Your task to perform on an android device: Go to Google Image 0: 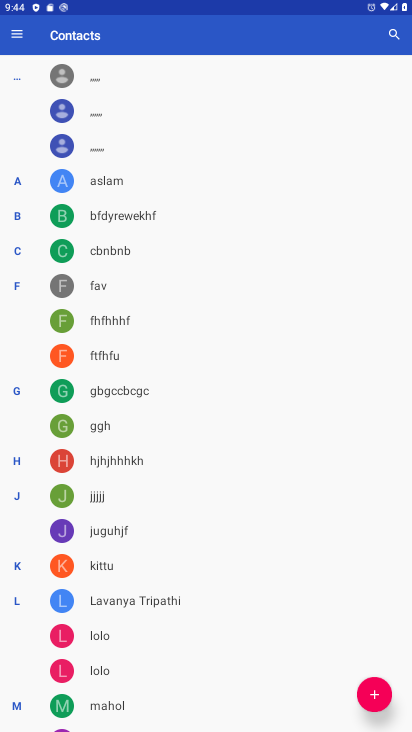
Step 0: press home button
Your task to perform on an android device: Go to Google Image 1: 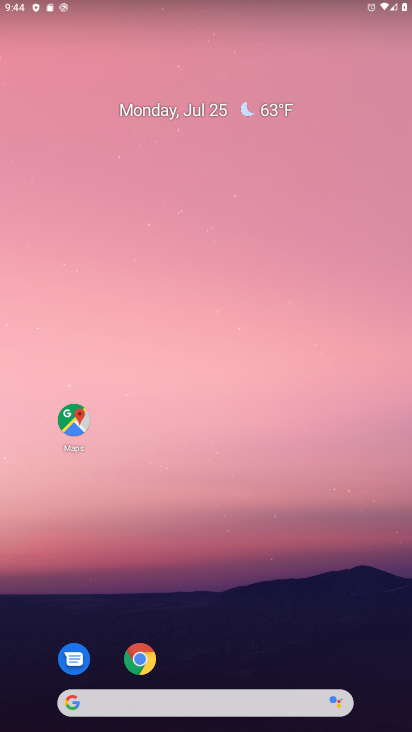
Step 1: drag from (230, 719) to (230, 298)
Your task to perform on an android device: Go to Google Image 2: 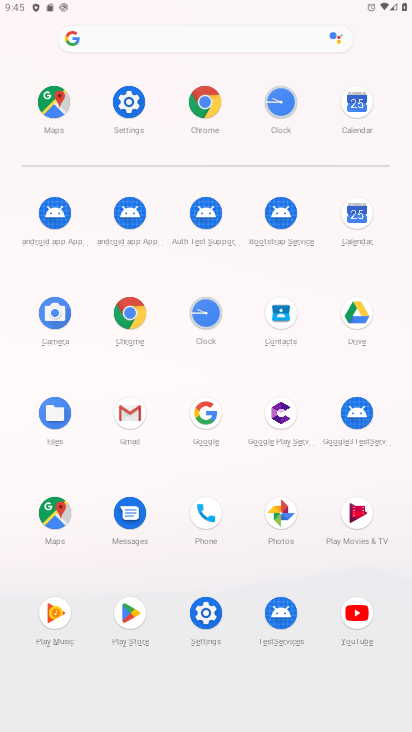
Step 2: click (206, 408)
Your task to perform on an android device: Go to Google Image 3: 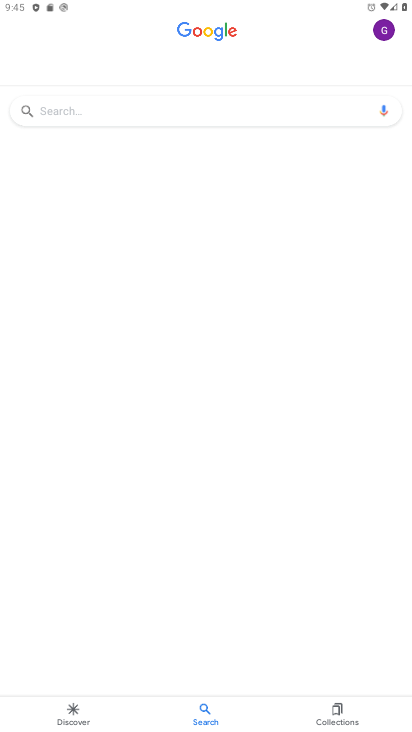
Step 3: task complete